Your task to perform on an android device: stop showing notifications on the lock screen Image 0: 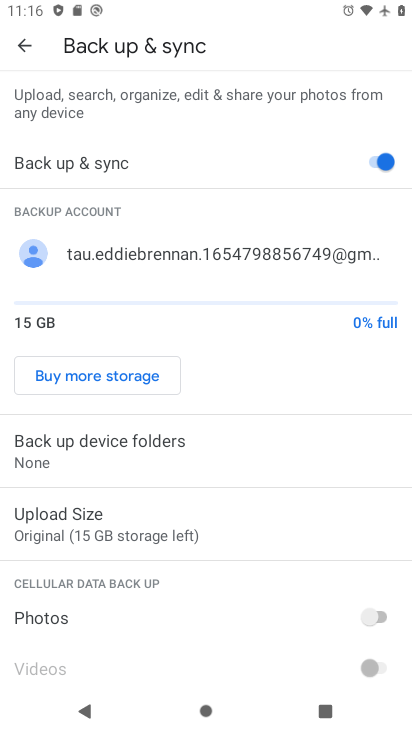
Step 0: press home button
Your task to perform on an android device: stop showing notifications on the lock screen Image 1: 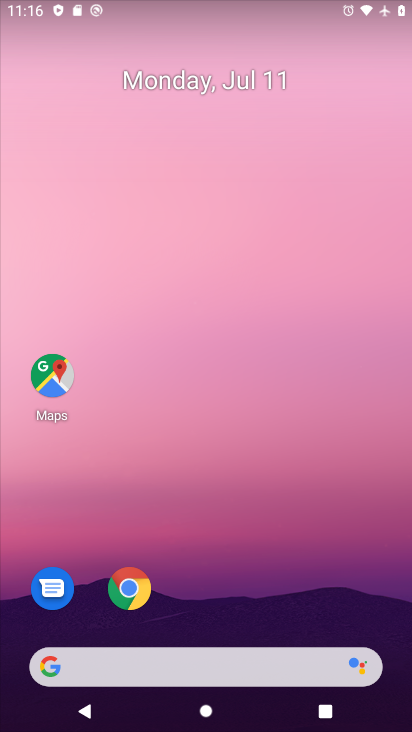
Step 1: drag from (125, 660) to (192, 52)
Your task to perform on an android device: stop showing notifications on the lock screen Image 2: 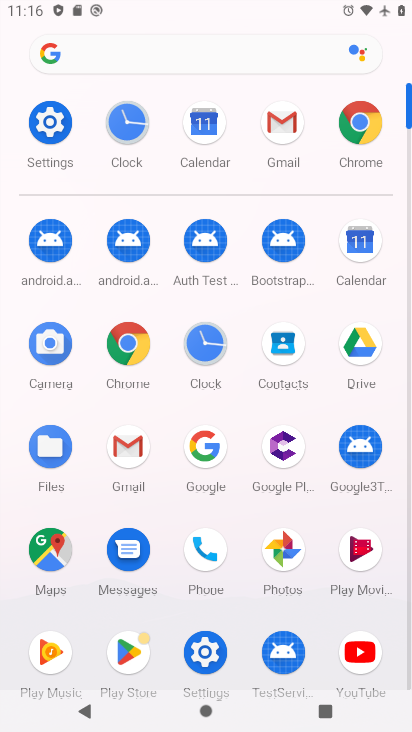
Step 2: click (44, 129)
Your task to perform on an android device: stop showing notifications on the lock screen Image 3: 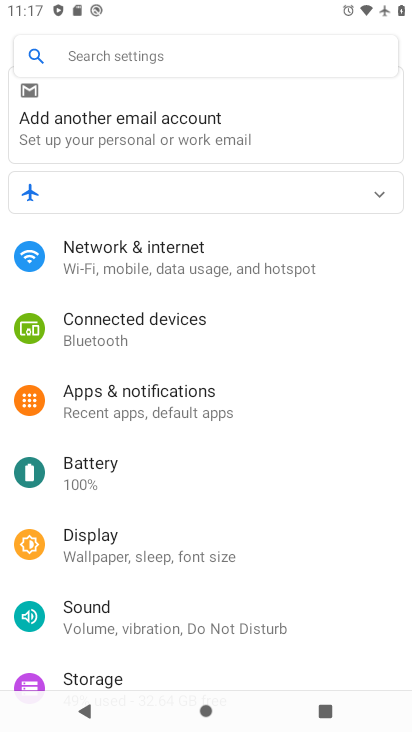
Step 3: click (149, 397)
Your task to perform on an android device: stop showing notifications on the lock screen Image 4: 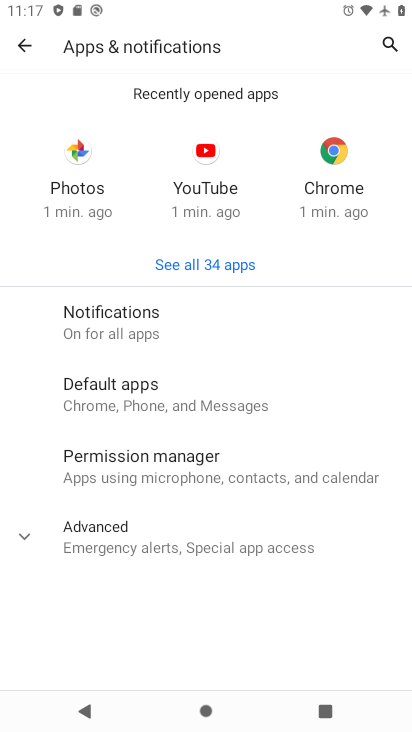
Step 4: click (121, 334)
Your task to perform on an android device: stop showing notifications on the lock screen Image 5: 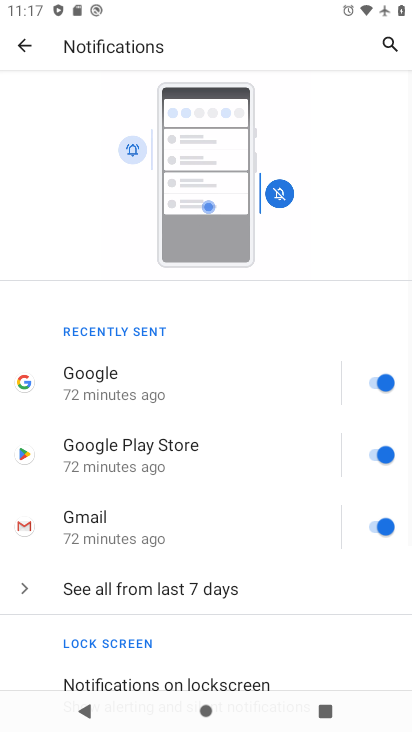
Step 5: drag from (228, 653) to (310, 219)
Your task to perform on an android device: stop showing notifications on the lock screen Image 6: 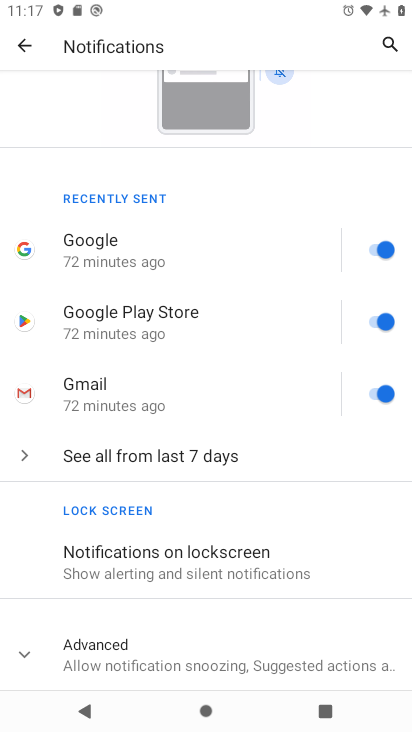
Step 6: click (203, 568)
Your task to perform on an android device: stop showing notifications on the lock screen Image 7: 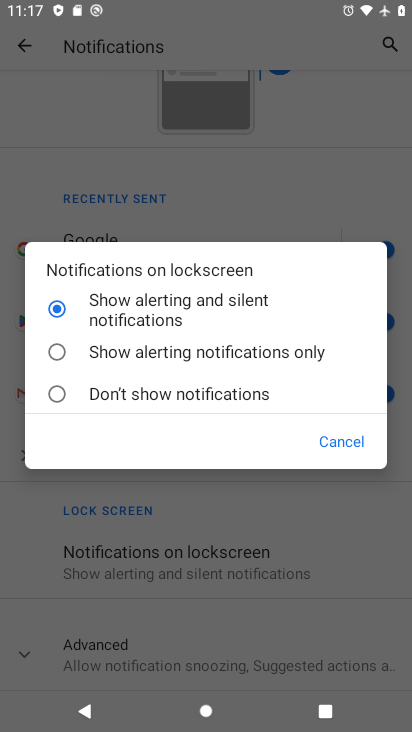
Step 7: click (57, 395)
Your task to perform on an android device: stop showing notifications on the lock screen Image 8: 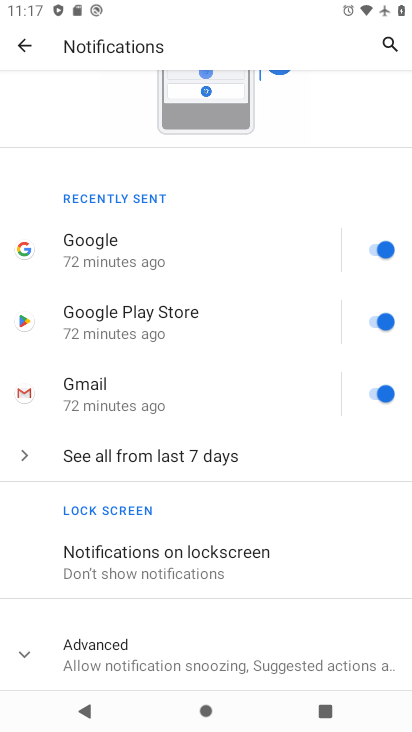
Step 8: task complete